Your task to perform on an android device: Go to display settings Image 0: 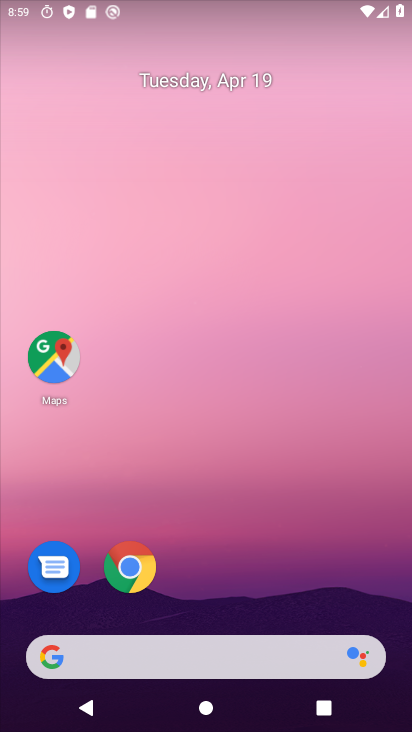
Step 0: drag from (213, 719) to (197, 30)
Your task to perform on an android device: Go to display settings Image 1: 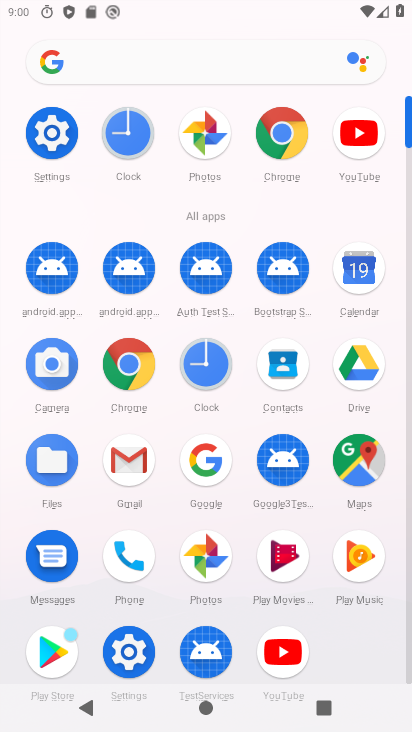
Step 1: click (127, 651)
Your task to perform on an android device: Go to display settings Image 2: 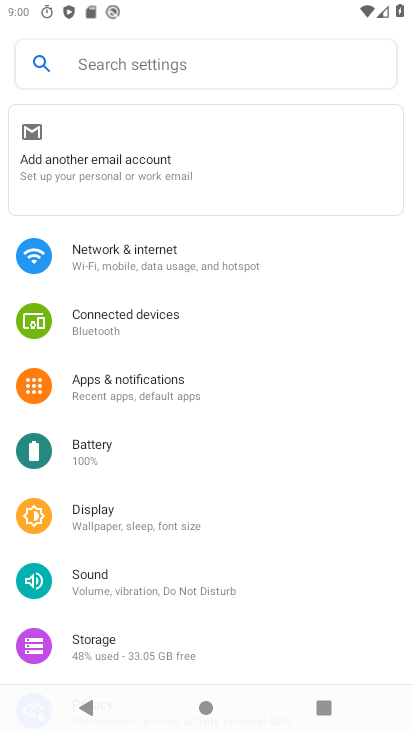
Step 2: click (118, 518)
Your task to perform on an android device: Go to display settings Image 3: 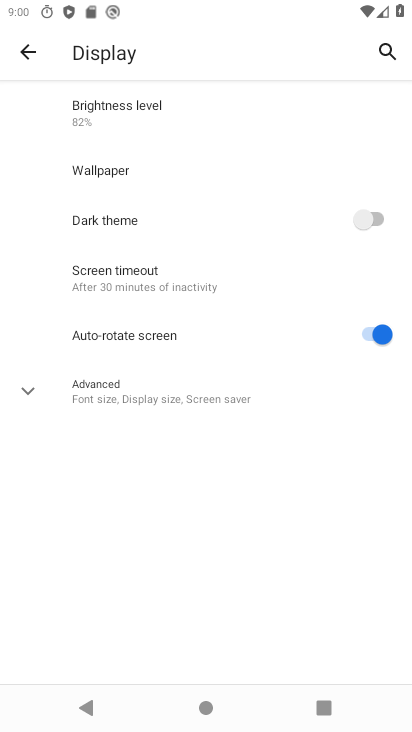
Step 3: task complete